Your task to perform on an android device: check storage Image 0: 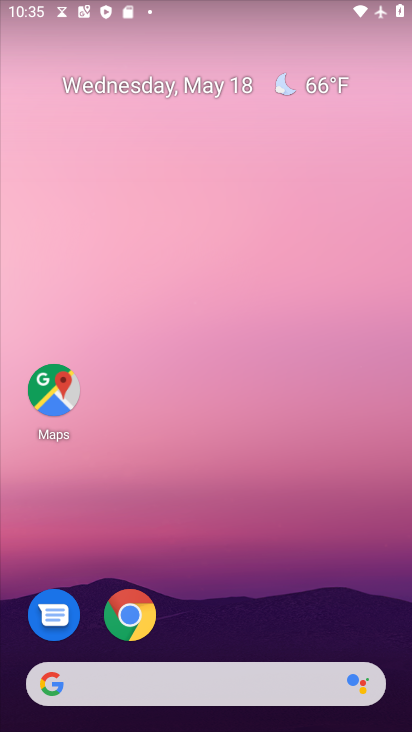
Step 0: drag from (271, 550) to (202, 19)
Your task to perform on an android device: check storage Image 1: 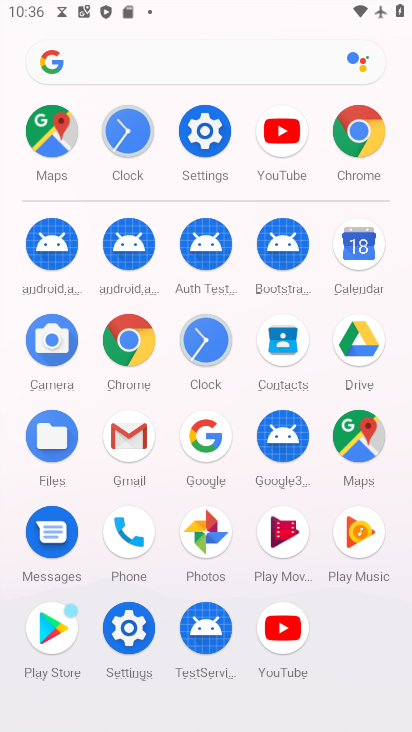
Step 1: drag from (12, 554) to (10, 239)
Your task to perform on an android device: check storage Image 2: 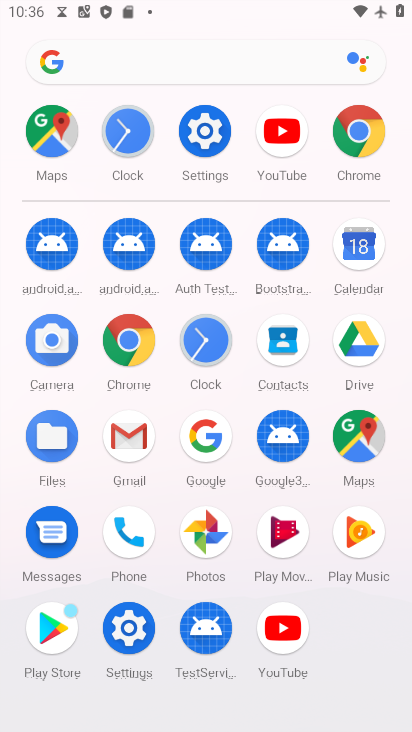
Step 2: click (129, 624)
Your task to perform on an android device: check storage Image 3: 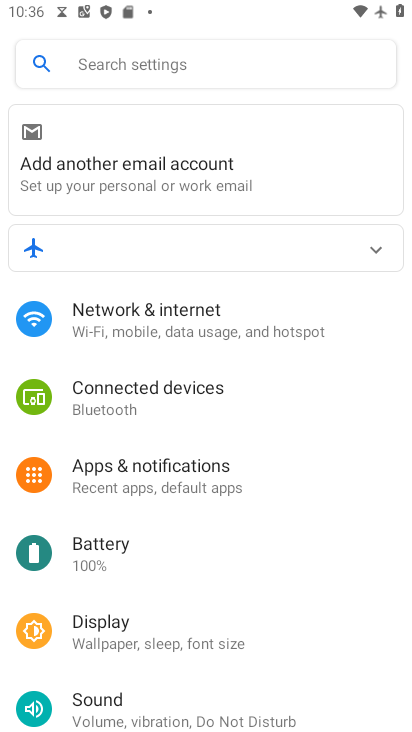
Step 3: drag from (195, 649) to (269, 238)
Your task to perform on an android device: check storage Image 4: 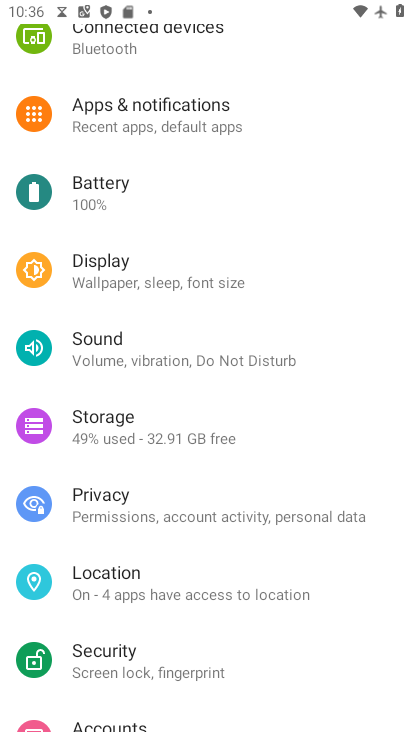
Step 4: drag from (185, 525) to (185, 185)
Your task to perform on an android device: check storage Image 5: 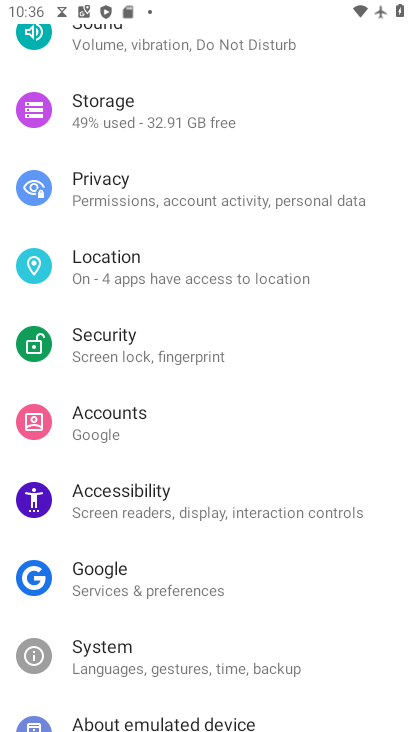
Step 5: click (131, 642)
Your task to perform on an android device: check storage Image 6: 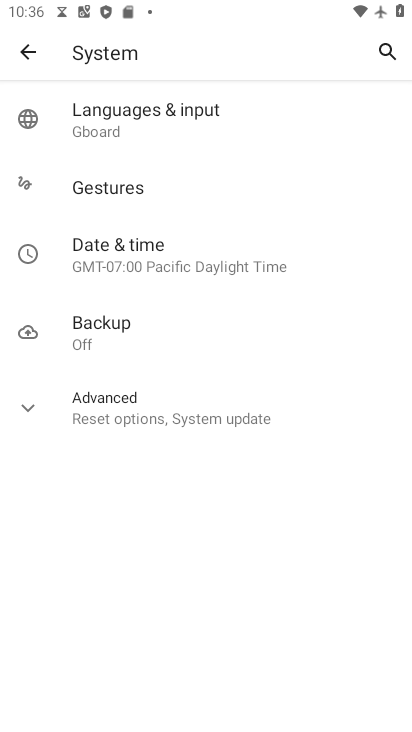
Step 6: press back button
Your task to perform on an android device: check storage Image 7: 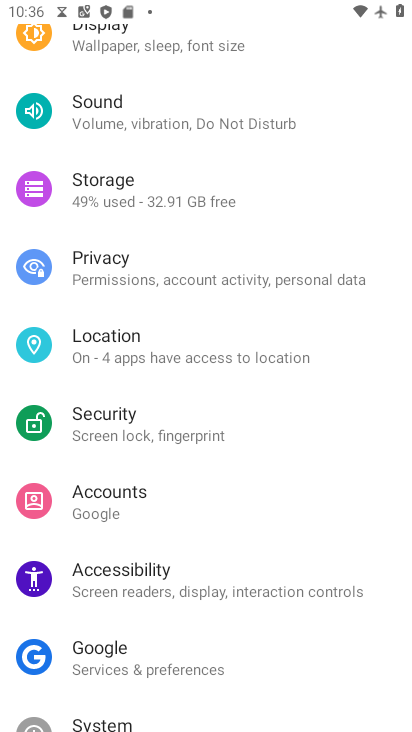
Step 7: drag from (215, 540) to (225, 156)
Your task to perform on an android device: check storage Image 8: 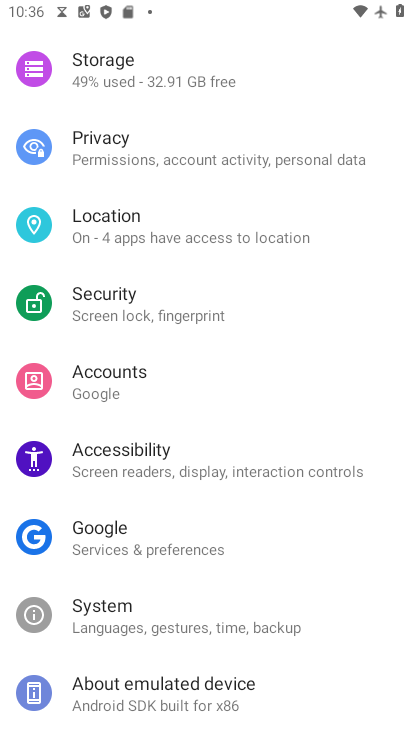
Step 8: drag from (185, 143) to (186, 488)
Your task to perform on an android device: check storage Image 9: 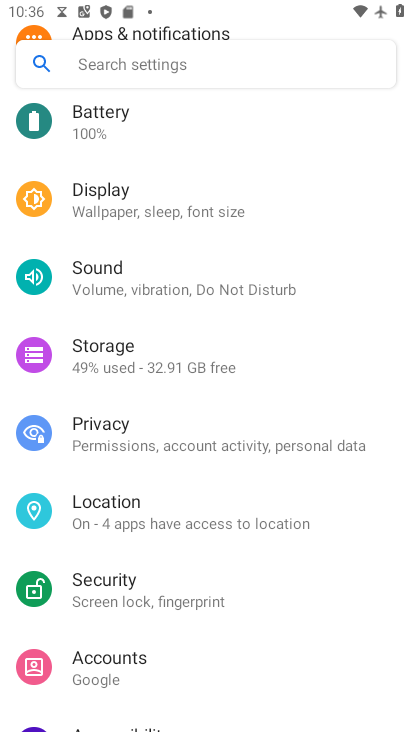
Step 9: click (131, 348)
Your task to perform on an android device: check storage Image 10: 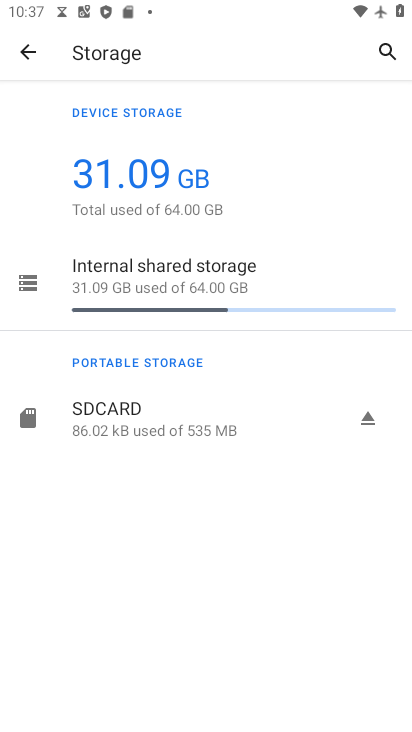
Step 10: task complete